Your task to perform on an android device: star an email in the gmail app Image 0: 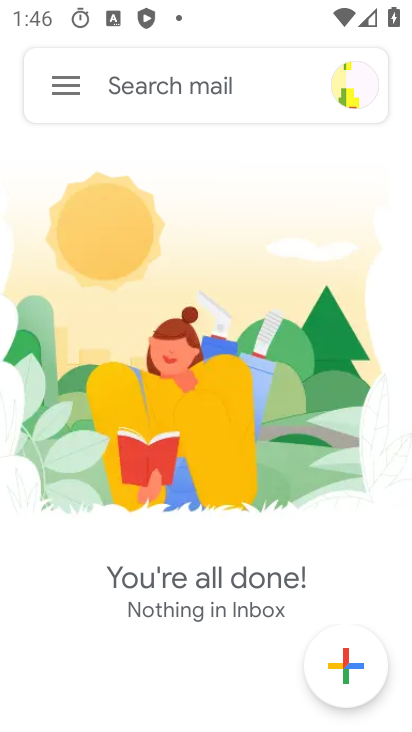
Step 0: click (74, 90)
Your task to perform on an android device: star an email in the gmail app Image 1: 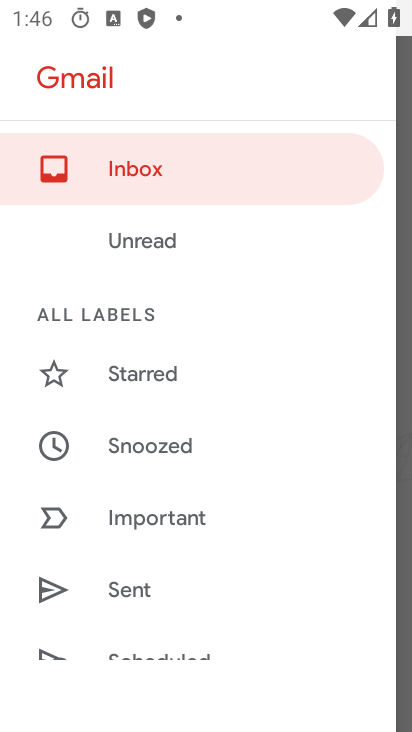
Step 1: drag from (136, 656) to (176, 343)
Your task to perform on an android device: star an email in the gmail app Image 2: 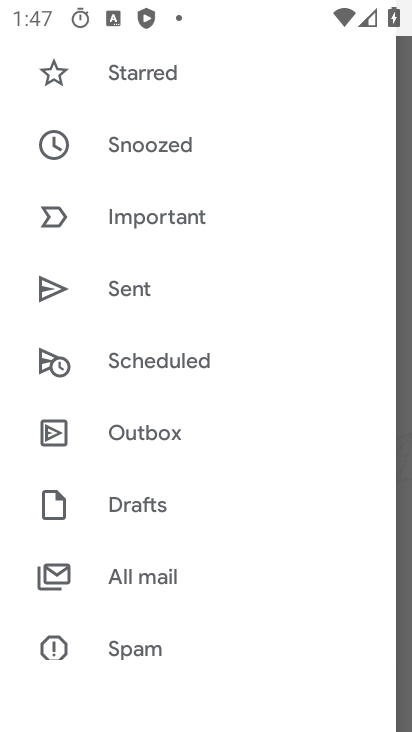
Step 2: click (146, 571)
Your task to perform on an android device: star an email in the gmail app Image 3: 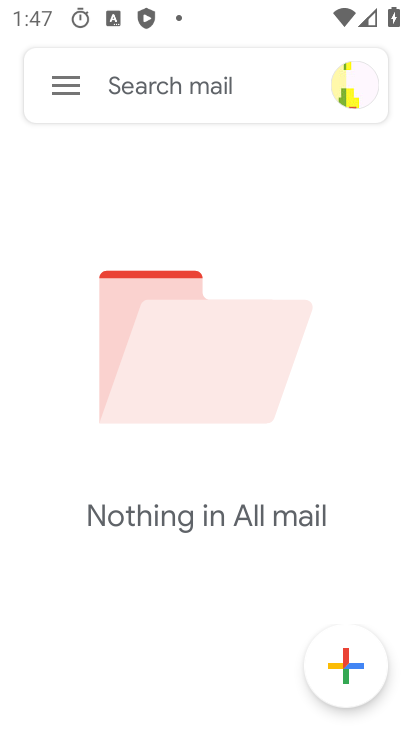
Step 3: task complete